Your task to perform on an android device: turn on improve location accuracy Image 0: 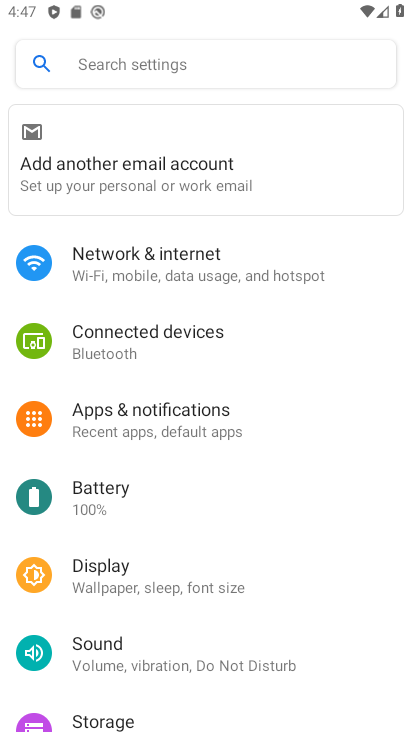
Step 0: drag from (315, 624) to (319, 251)
Your task to perform on an android device: turn on improve location accuracy Image 1: 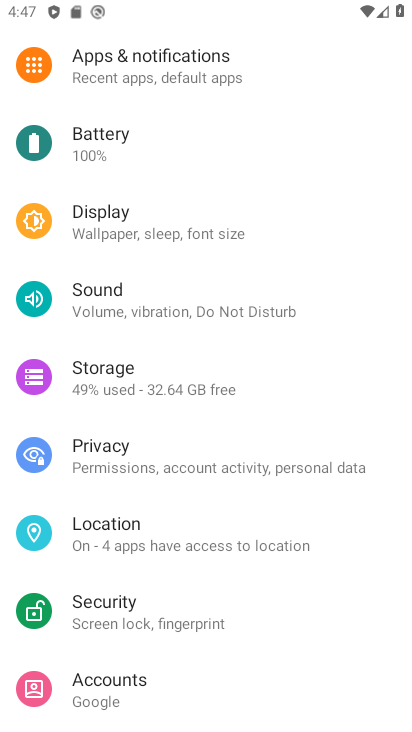
Step 1: click (220, 538)
Your task to perform on an android device: turn on improve location accuracy Image 2: 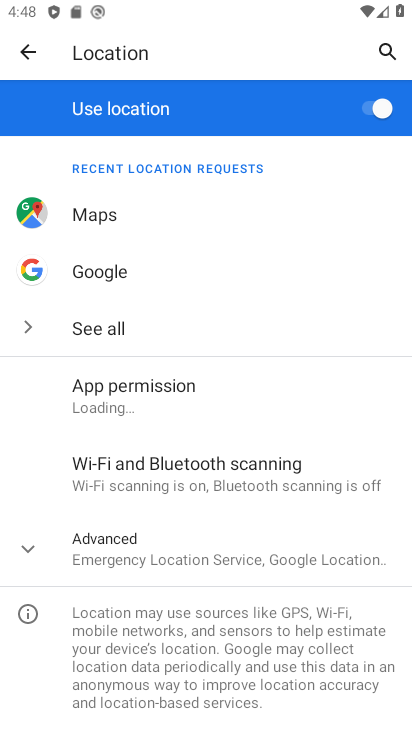
Step 2: click (189, 556)
Your task to perform on an android device: turn on improve location accuracy Image 3: 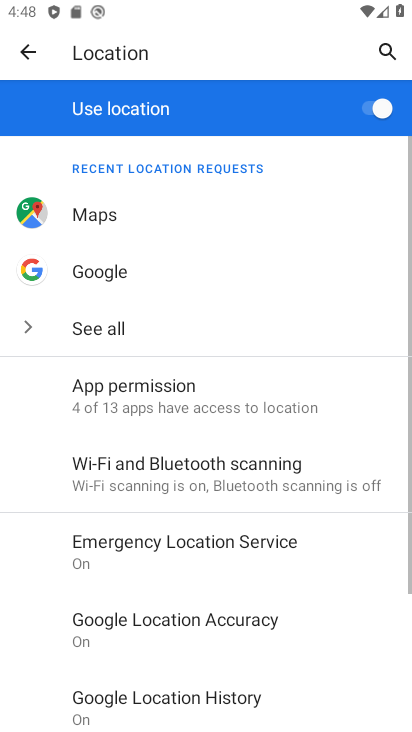
Step 3: click (224, 621)
Your task to perform on an android device: turn on improve location accuracy Image 4: 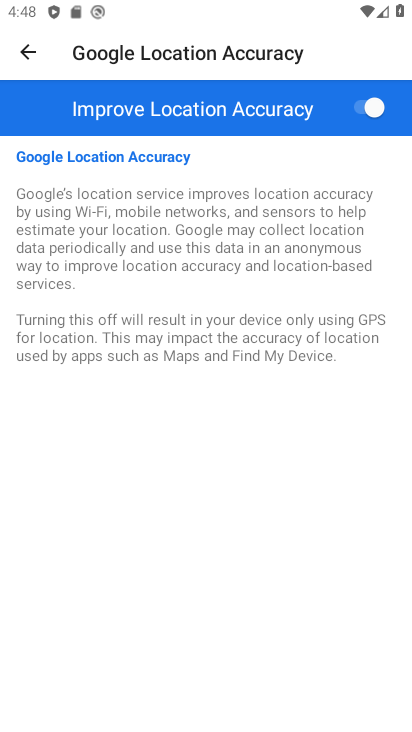
Step 4: task complete